Your task to perform on an android device: Set the phone to "Do not disturb". Image 0: 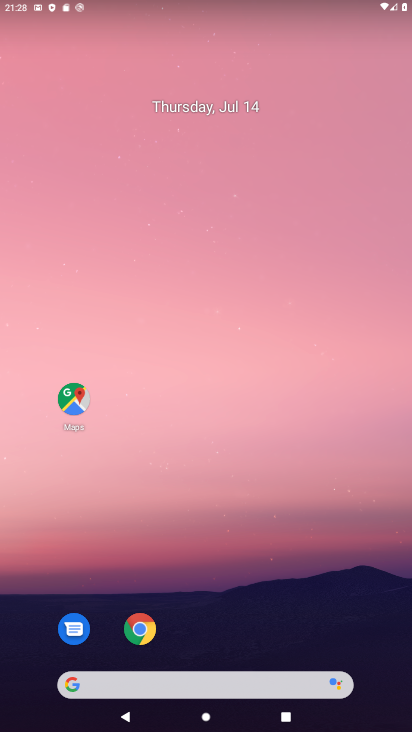
Step 0: drag from (269, 582) to (276, 124)
Your task to perform on an android device: Set the phone to "Do not disturb". Image 1: 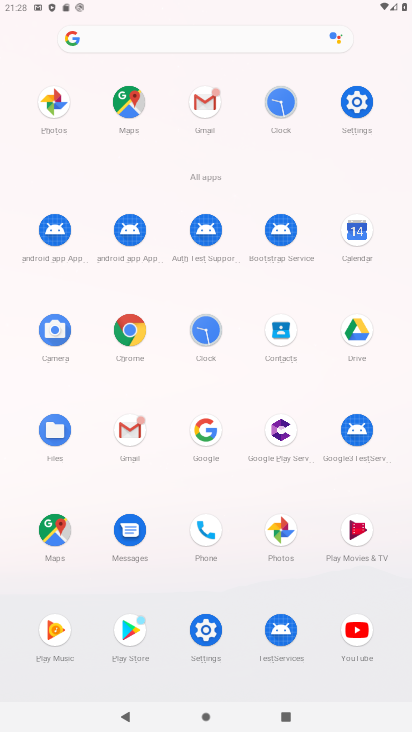
Step 1: drag from (184, 88) to (169, 422)
Your task to perform on an android device: Set the phone to "Do not disturb". Image 2: 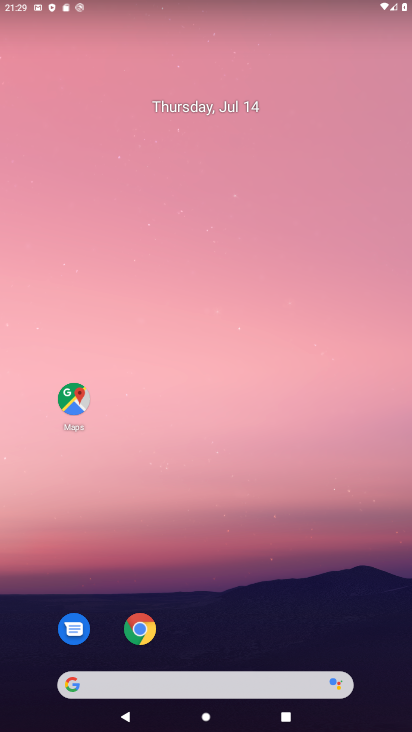
Step 2: drag from (220, 7) to (221, 356)
Your task to perform on an android device: Set the phone to "Do not disturb". Image 3: 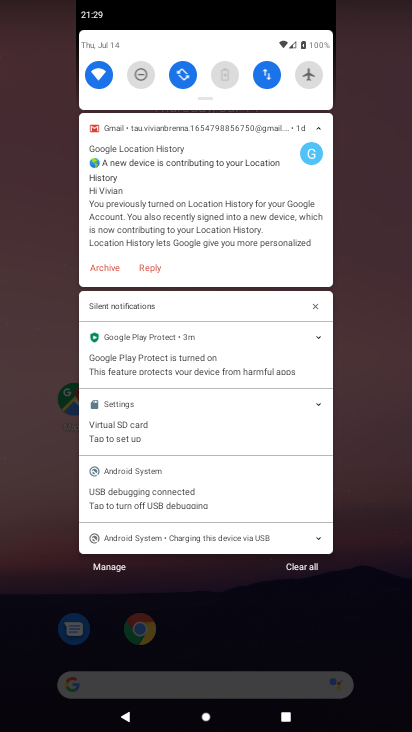
Step 3: click (134, 78)
Your task to perform on an android device: Set the phone to "Do not disturb". Image 4: 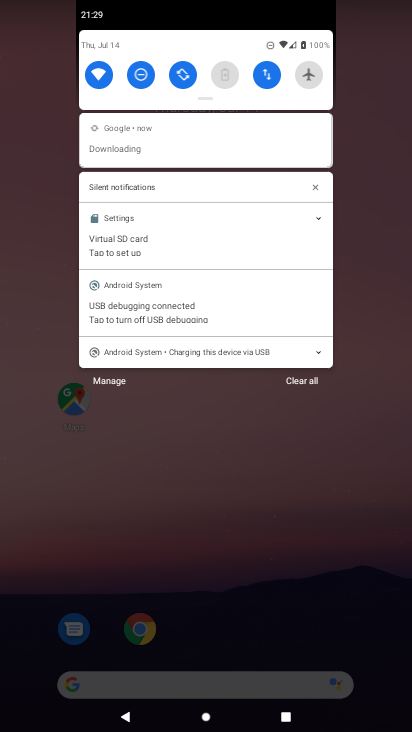
Step 4: task complete